Your task to perform on an android device: Check the weather Image 0: 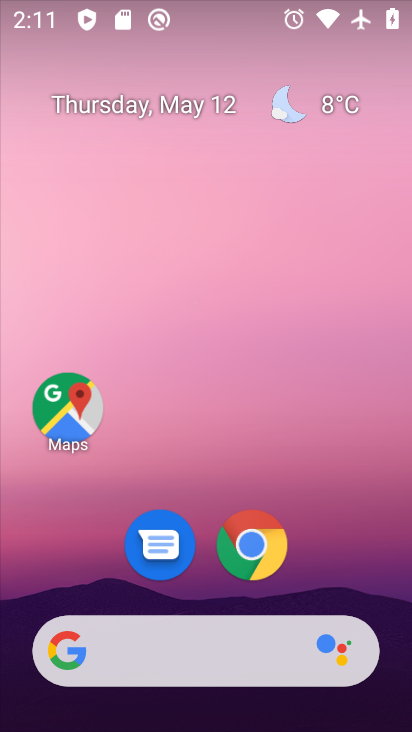
Step 0: click (318, 98)
Your task to perform on an android device: Check the weather Image 1: 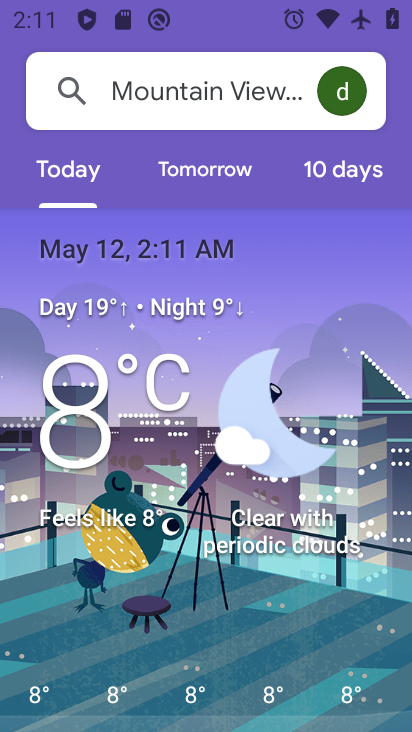
Step 1: drag from (275, 620) to (232, 392)
Your task to perform on an android device: Check the weather Image 2: 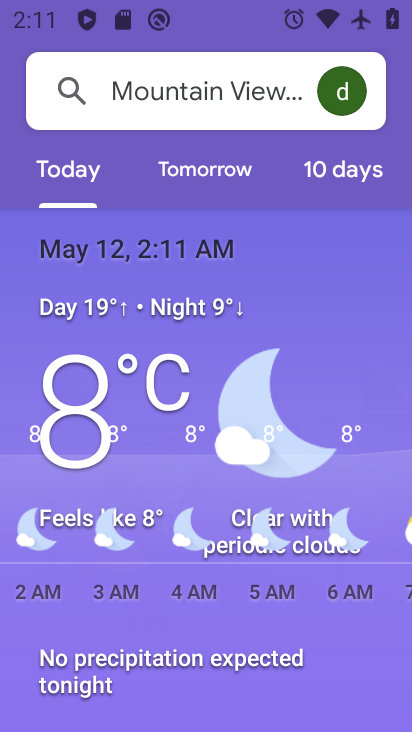
Step 2: drag from (316, 533) to (3, 499)
Your task to perform on an android device: Check the weather Image 3: 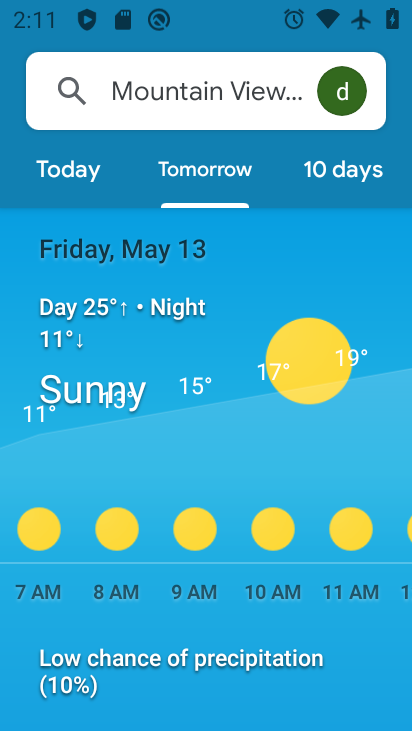
Step 3: drag from (71, 529) to (377, 526)
Your task to perform on an android device: Check the weather Image 4: 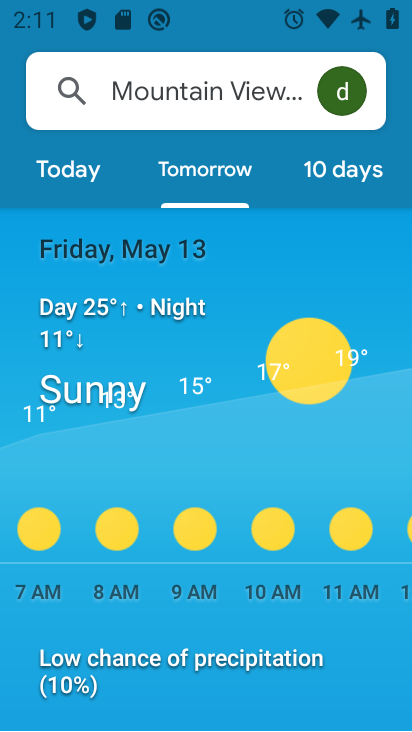
Step 4: click (335, 527)
Your task to perform on an android device: Check the weather Image 5: 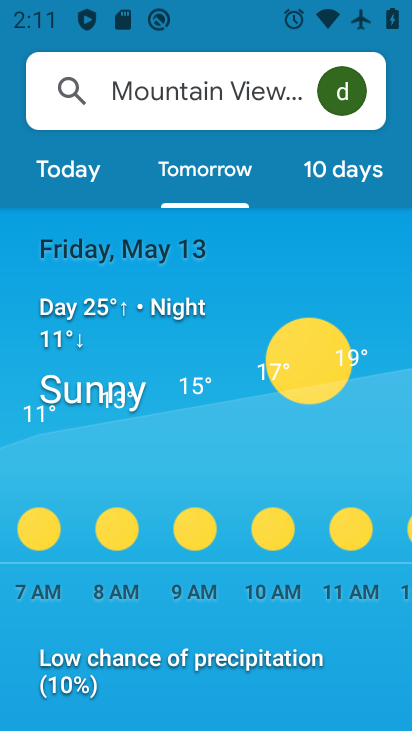
Step 5: click (64, 166)
Your task to perform on an android device: Check the weather Image 6: 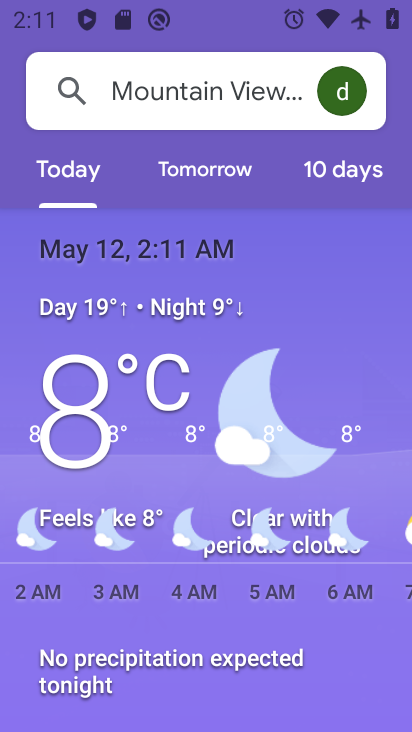
Step 6: task complete